Your task to perform on an android device: turn off improve location accuracy Image 0: 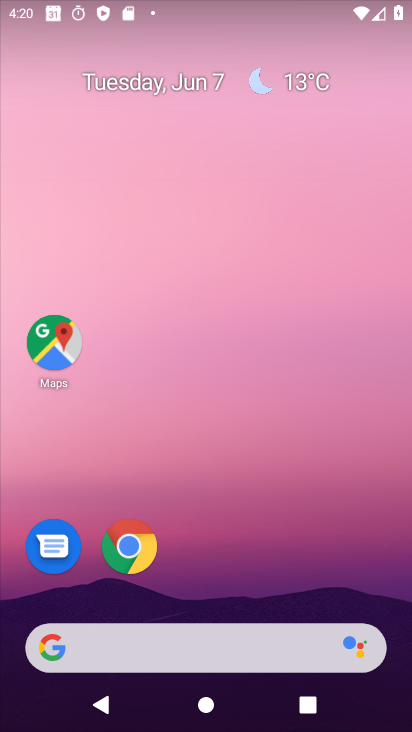
Step 0: drag from (193, 615) to (230, 100)
Your task to perform on an android device: turn off improve location accuracy Image 1: 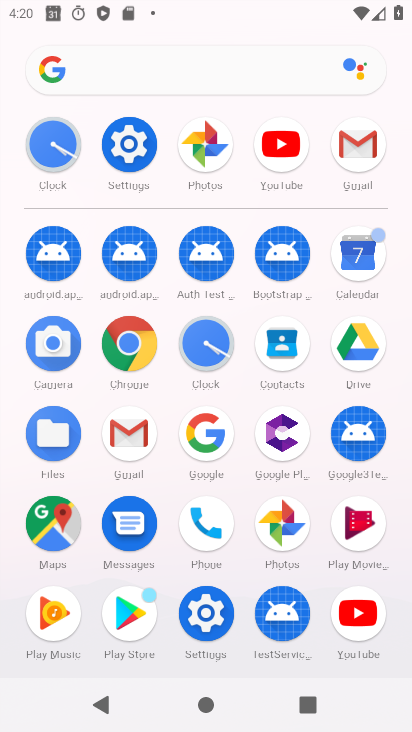
Step 1: click (138, 144)
Your task to perform on an android device: turn off improve location accuracy Image 2: 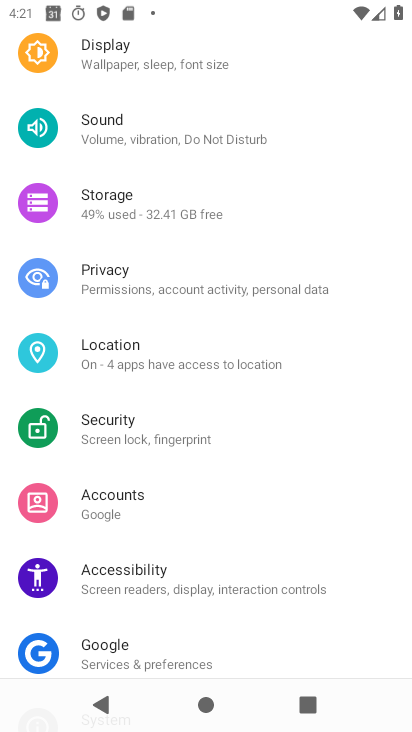
Step 2: click (125, 359)
Your task to perform on an android device: turn off improve location accuracy Image 3: 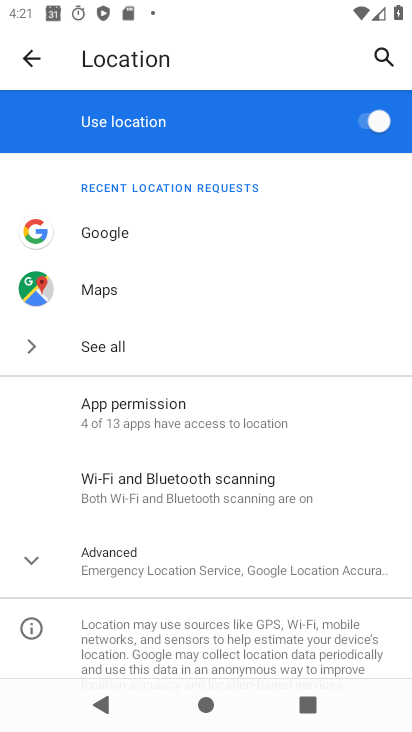
Step 3: click (113, 574)
Your task to perform on an android device: turn off improve location accuracy Image 4: 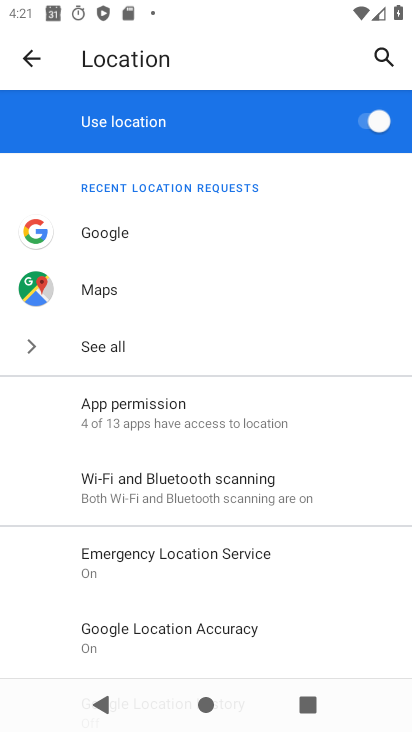
Step 4: drag from (189, 638) to (196, 231)
Your task to perform on an android device: turn off improve location accuracy Image 5: 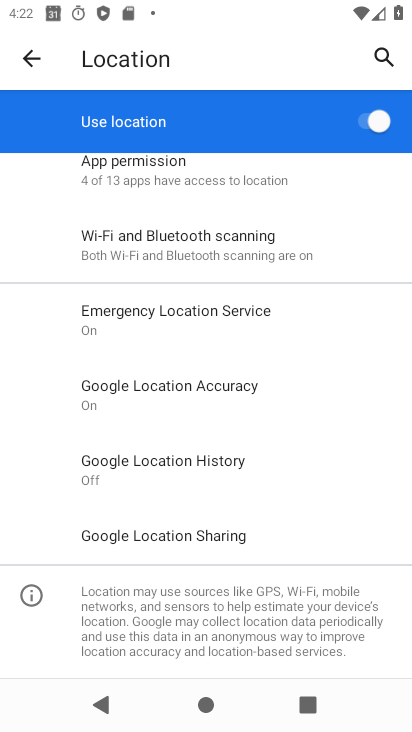
Step 5: click (180, 382)
Your task to perform on an android device: turn off improve location accuracy Image 6: 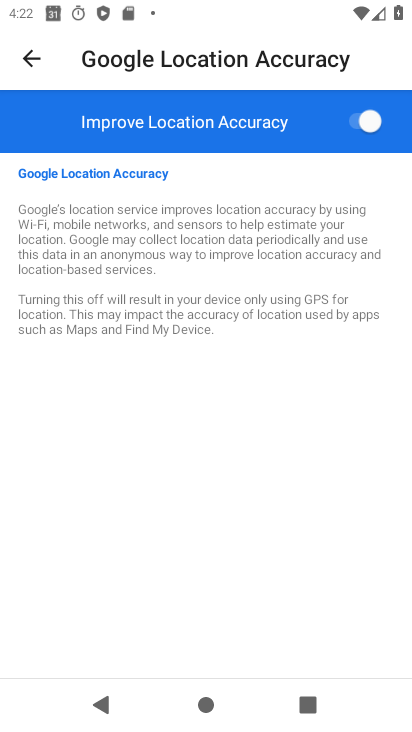
Step 6: click (359, 128)
Your task to perform on an android device: turn off improve location accuracy Image 7: 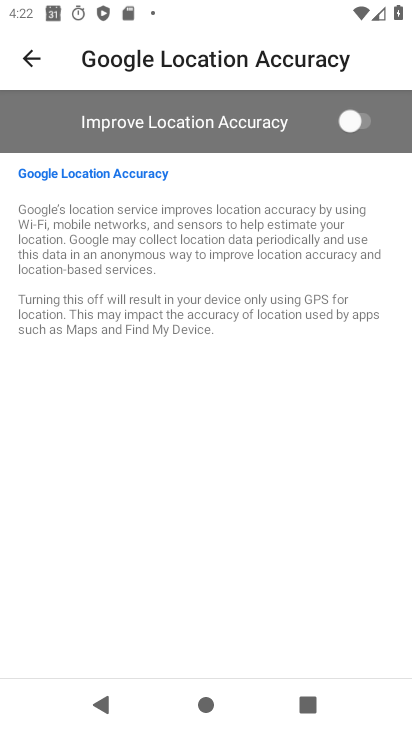
Step 7: task complete